Your task to perform on an android device: Show me productivity apps on the Play Store Image 0: 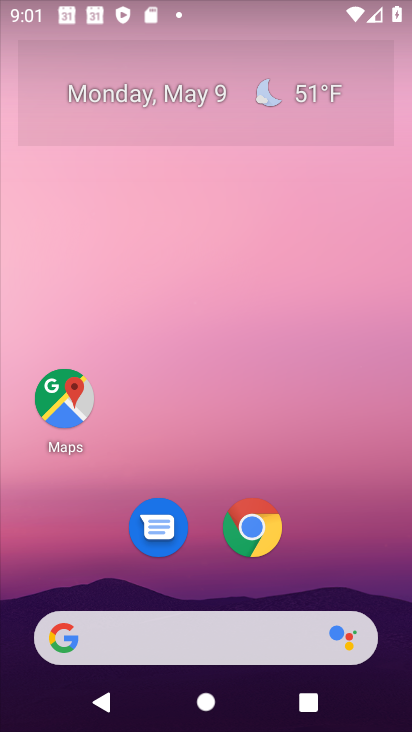
Step 0: drag from (215, 317) to (310, 13)
Your task to perform on an android device: Show me productivity apps on the Play Store Image 1: 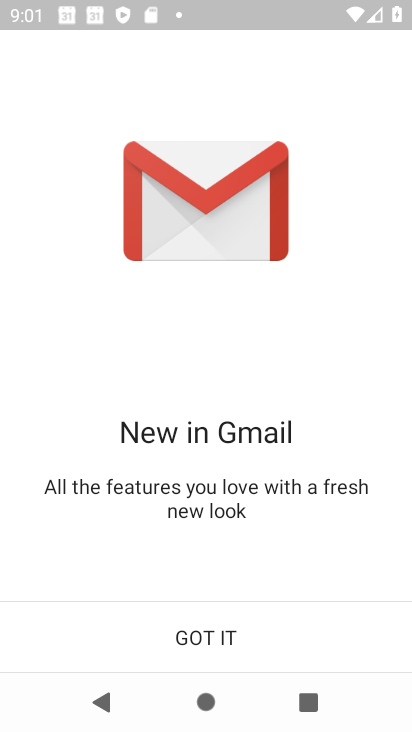
Step 1: click (272, 645)
Your task to perform on an android device: Show me productivity apps on the Play Store Image 2: 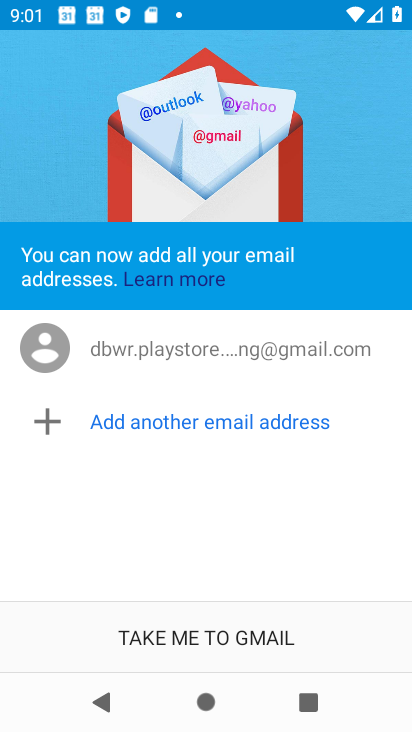
Step 2: press home button
Your task to perform on an android device: Show me productivity apps on the Play Store Image 3: 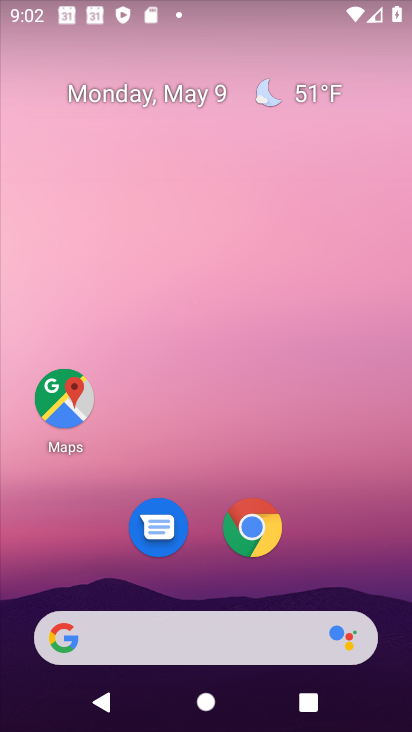
Step 3: drag from (195, 590) to (203, 12)
Your task to perform on an android device: Show me productivity apps on the Play Store Image 4: 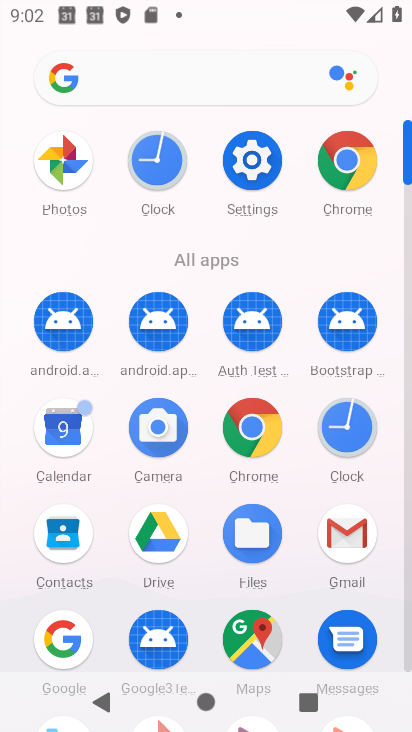
Step 4: drag from (198, 562) to (219, 152)
Your task to perform on an android device: Show me productivity apps on the Play Store Image 5: 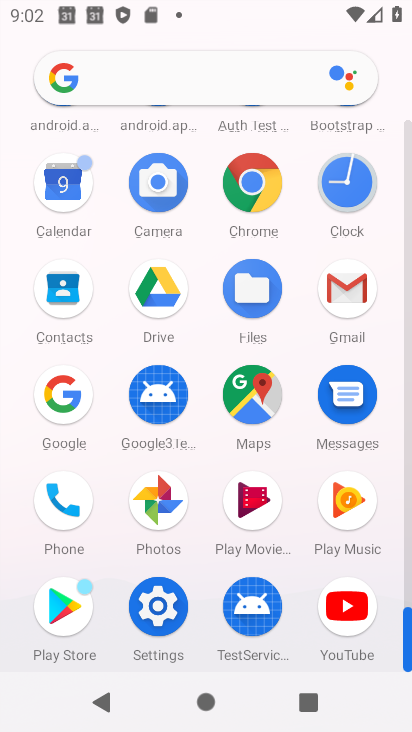
Step 5: click (73, 621)
Your task to perform on an android device: Show me productivity apps on the Play Store Image 6: 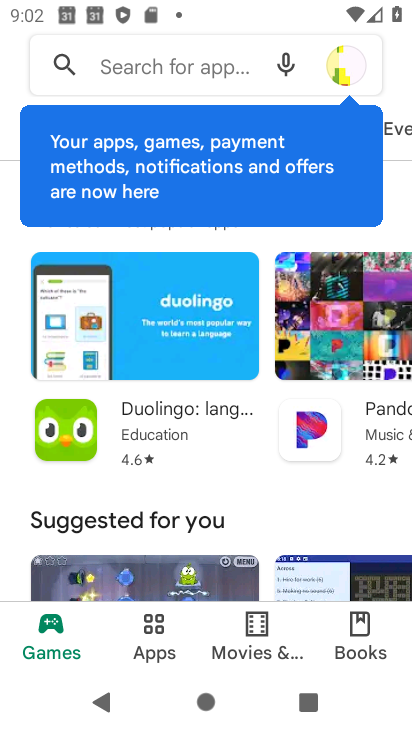
Step 6: click (149, 629)
Your task to perform on an android device: Show me productivity apps on the Play Store Image 7: 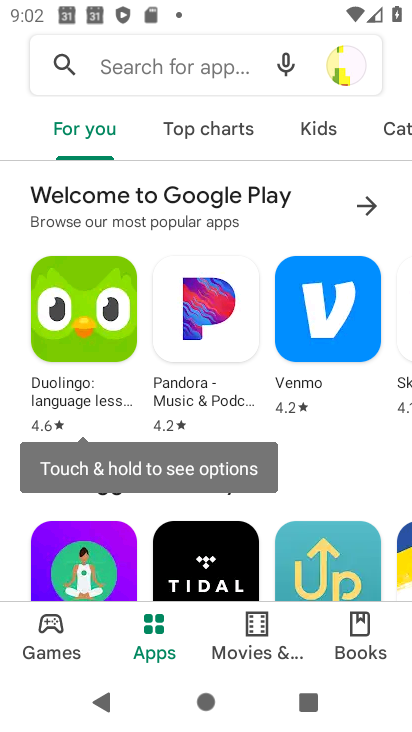
Step 7: drag from (321, 128) to (83, 91)
Your task to perform on an android device: Show me productivity apps on the Play Store Image 8: 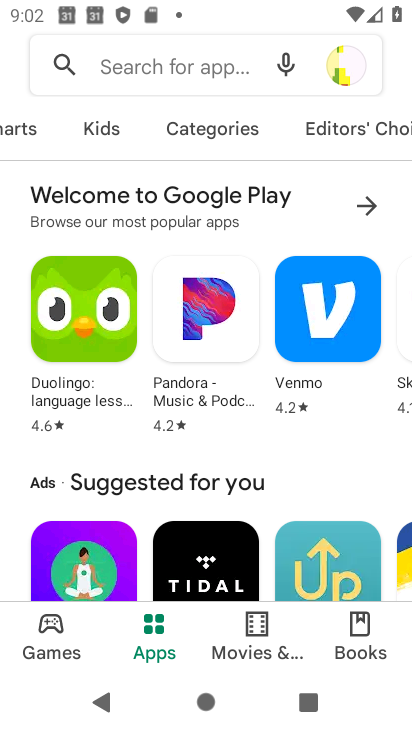
Step 8: click (218, 132)
Your task to perform on an android device: Show me productivity apps on the Play Store Image 9: 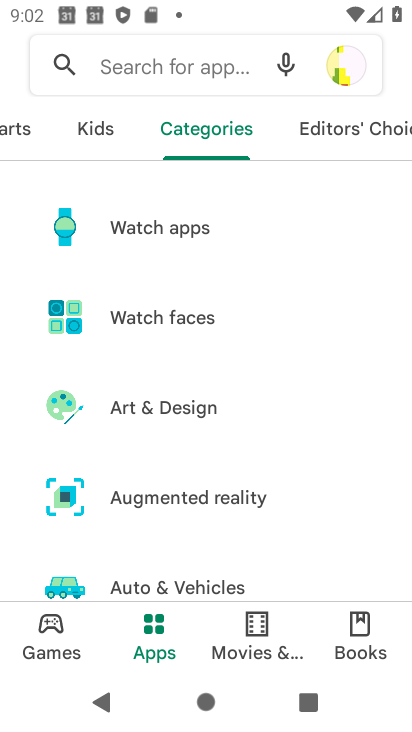
Step 9: drag from (185, 337) to (217, 145)
Your task to perform on an android device: Show me productivity apps on the Play Store Image 10: 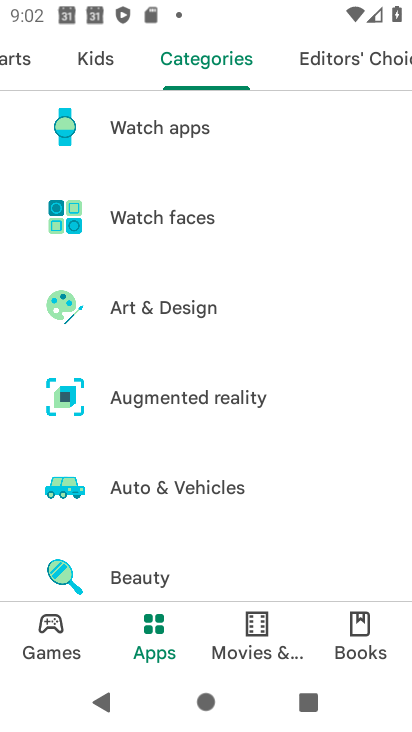
Step 10: drag from (158, 518) to (222, 187)
Your task to perform on an android device: Show me productivity apps on the Play Store Image 11: 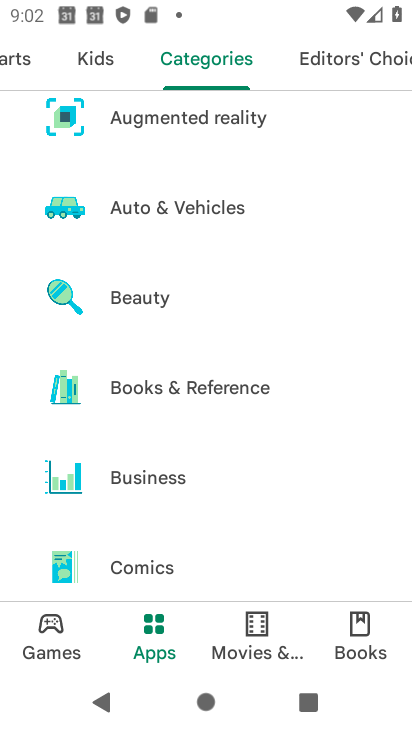
Step 11: drag from (201, 512) to (251, 129)
Your task to perform on an android device: Show me productivity apps on the Play Store Image 12: 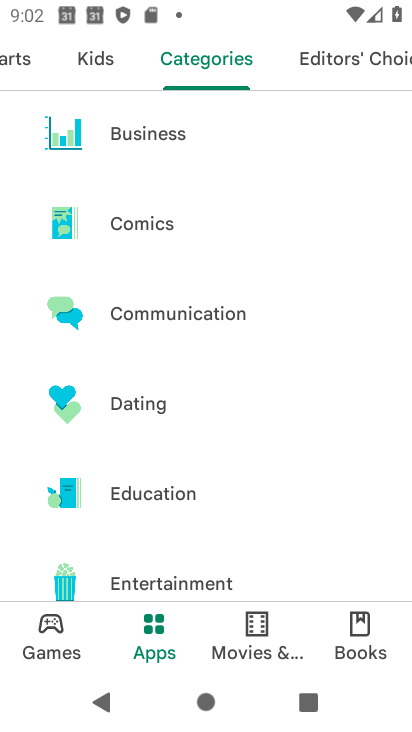
Step 12: drag from (174, 472) to (218, 39)
Your task to perform on an android device: Show me productivity apps on the Play Store Image 13: 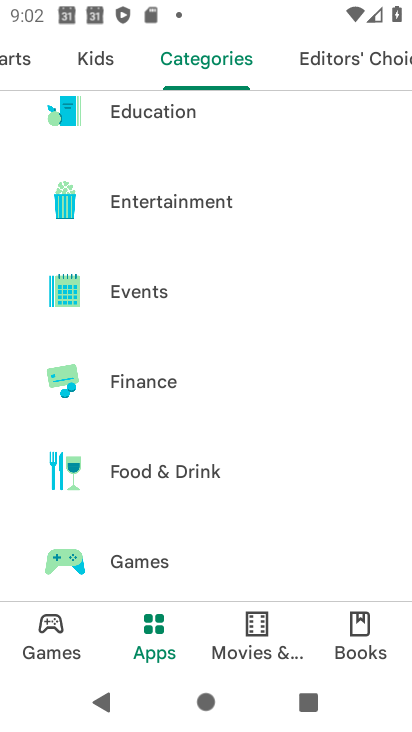
Step 13: drag from (163, 532) to (243, 131)
Your task to perform on an android device: Show me productivity apps on the Play Store Image 14: 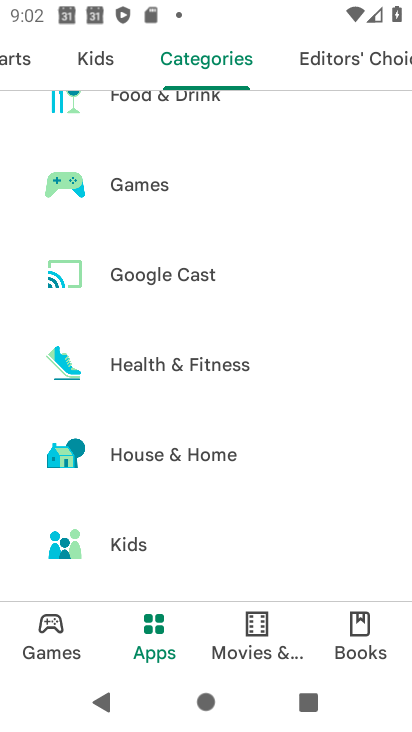
Step 14: drag from (180, 490) to (231, 128)
Your task to perform on an android device: Show me productivity apps on the Play Store Image 15: 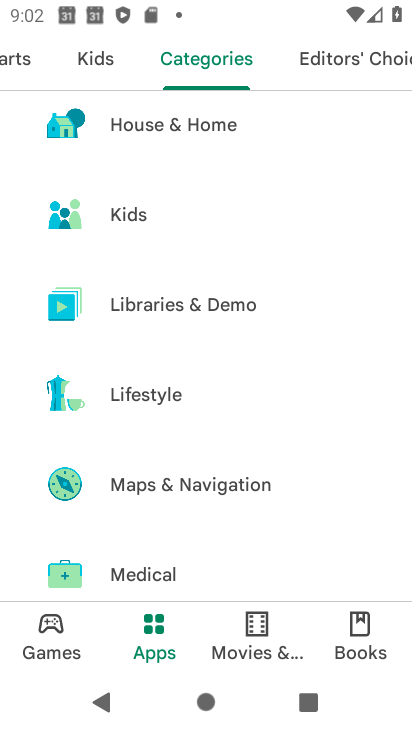
Step 15: drag from (133, 518) to (191, 124)
Your task to perform on an android device: Show me productivity apps on the Play Store Image 16: 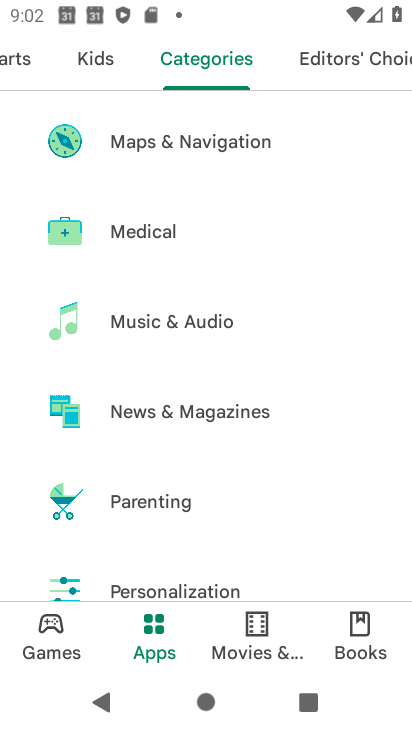
Step 16: drag from (133, 548) to (222, 25)
Your task to perform on an android device: Show me productivity apps on the Play Store Image 17: 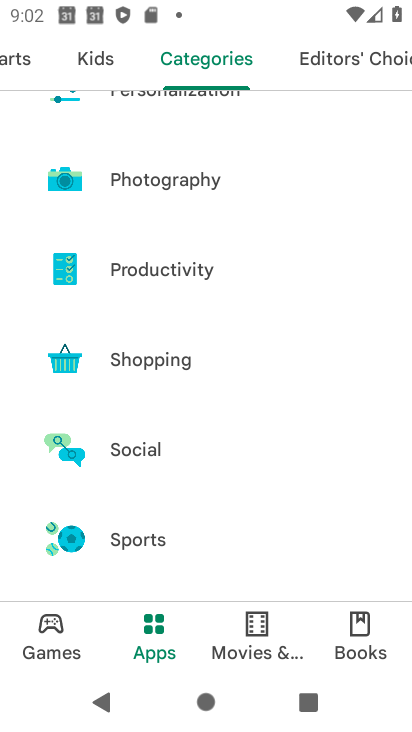
Step 17: click (179, 279)
Your task to perform on an android device: Show me productivity apps on the Play Store Image 18: 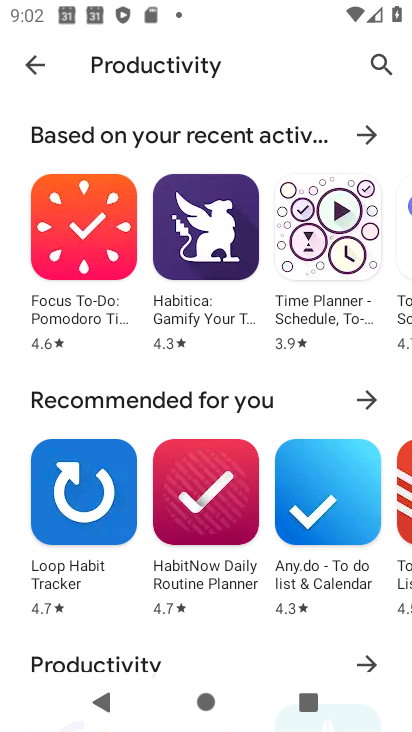
Step 18: task complete